Your task to perform on an android device: Go to battery settings Image 0: 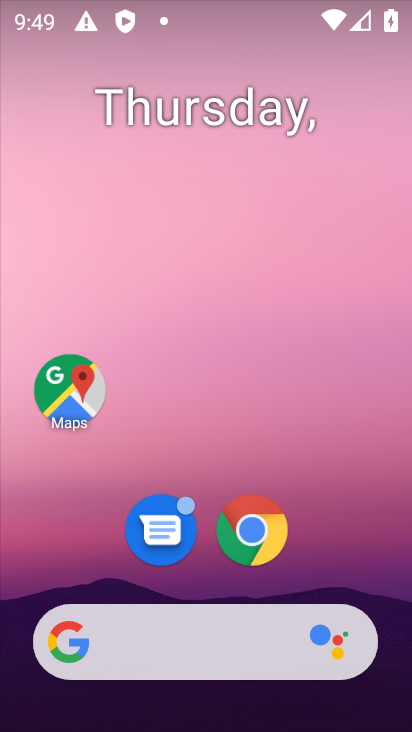
Step 0: press home button
Your task to perform on an android device: Go to battery settings Image 1: 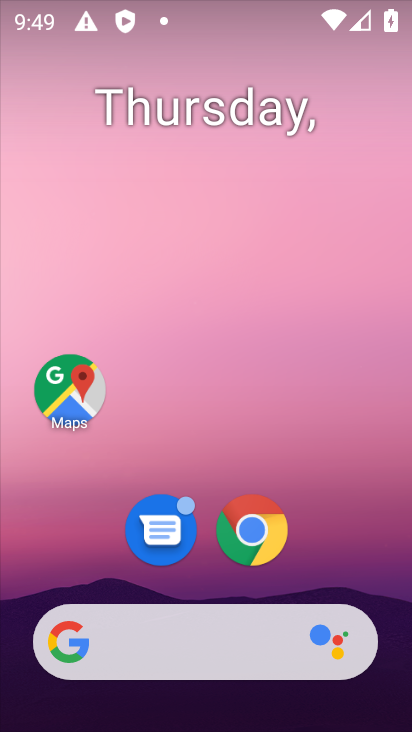
Step 1: drag from (322, 561) to (319, 28)
Your task to perform on an android device: Go to battery settings Image 2: 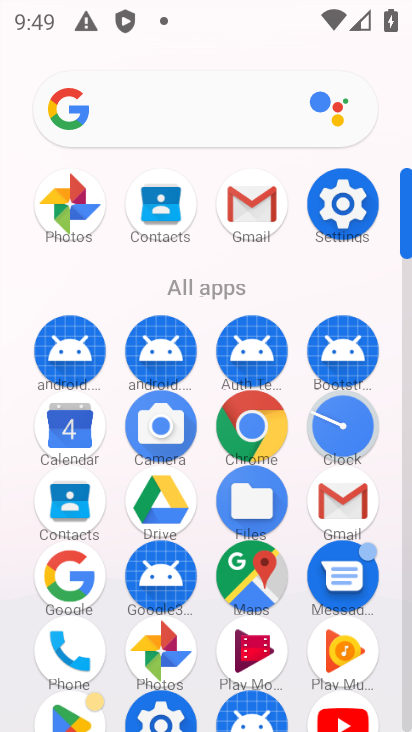
Step 2: click (345, 185)
Your task to perform on an android device: Go to battery settings Image 3: 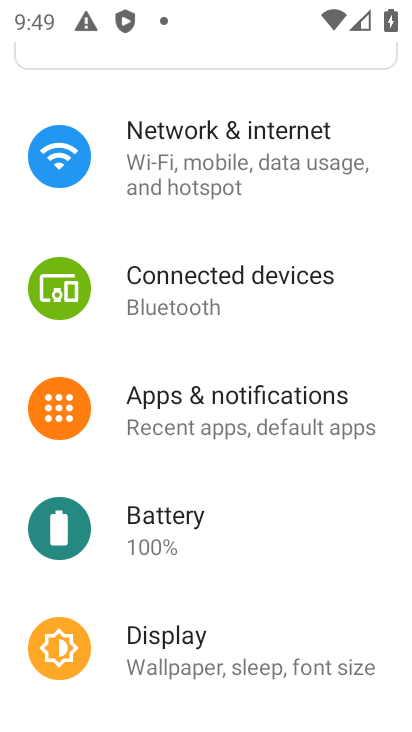
Step 3: click (146, 543)
Your task to perform on an android device: Go to battery settings Image 4: 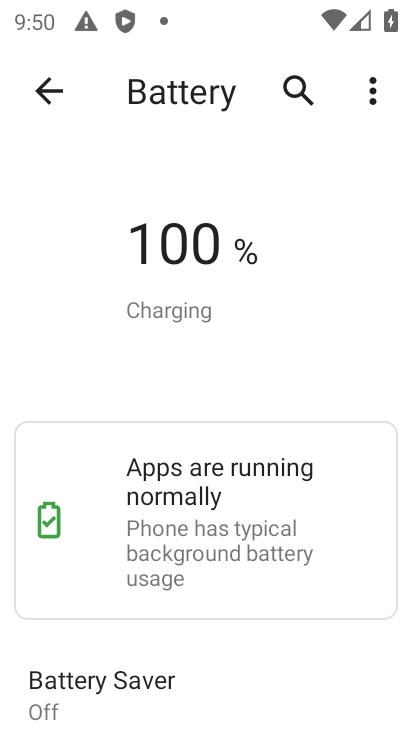
Step 4: task complete